Your task to perform on an android device: Go to sound settings Image 0: 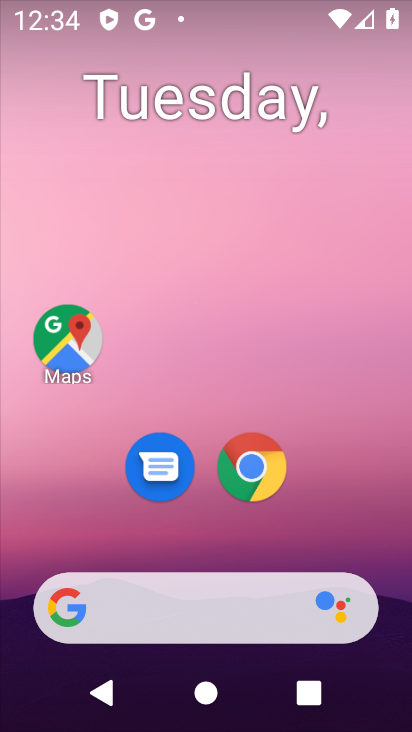
Step 0: drag from (356, 501) to (280, 20)
Your task to perform on an android device: Go to sound settings Image 1: 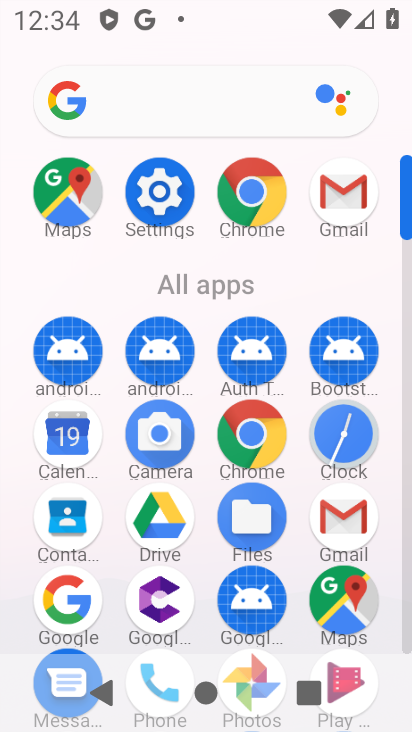
Step 1: drag from (23, 561) to (23, 330)
Your task to perform on an android device: Go to sound settings Image 2: 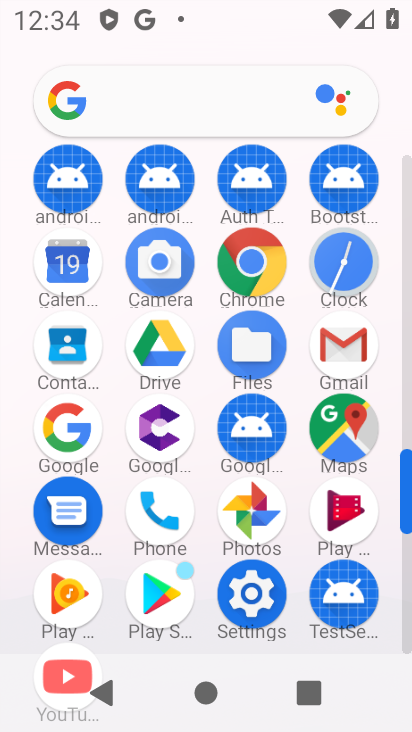
Step 2: click (251, 590)
Your task to perform on an android device: Go to sound settings Image 3: 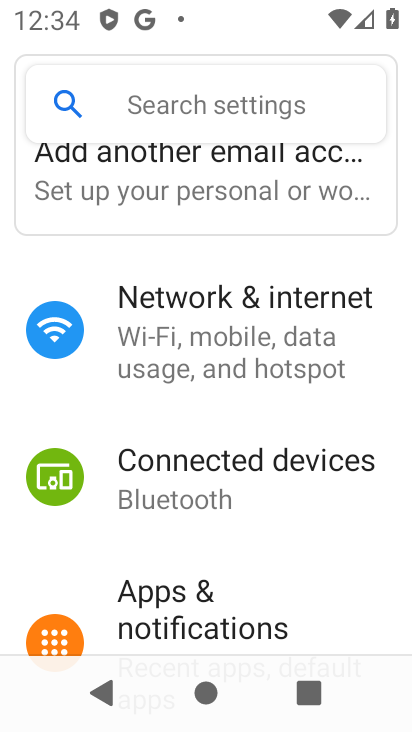
Step 3: drag from (309, 588) to (315, 188)
Your task to perform on an android device: Go to sound settings Image 4: 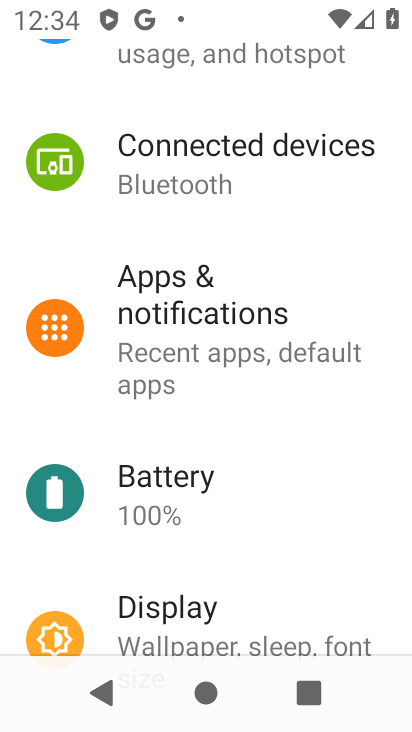
Step 4: drag from (281, 538) to (273, 237)
Your task to perform on an android device: Go to sound settings Image 5: 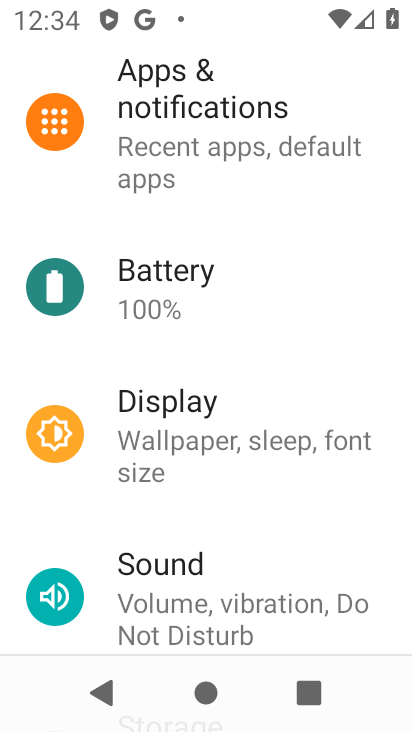
Step 5: click (271, 601)
Your task to perform on an android device: Go to sound settings Image 6: 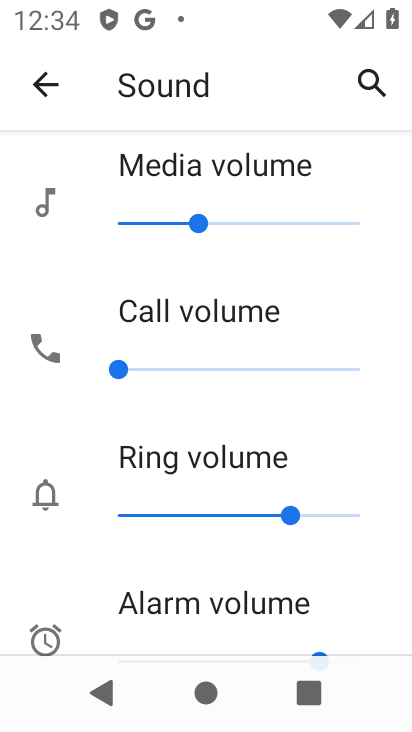
Step 6: task complete